Your task to perform on an android device: Open calendar and show me the first week of next month Image 0: 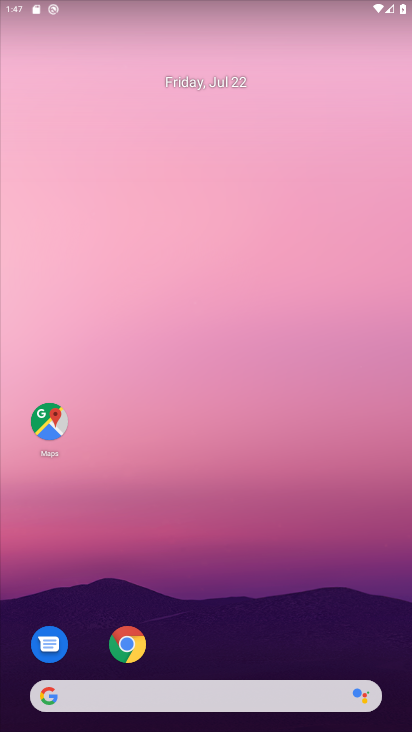
Step 0: drag from (230, 632) to (277, 7)
Your task to perform on an android device: Open calendar and show me the first week of next month Image 1: 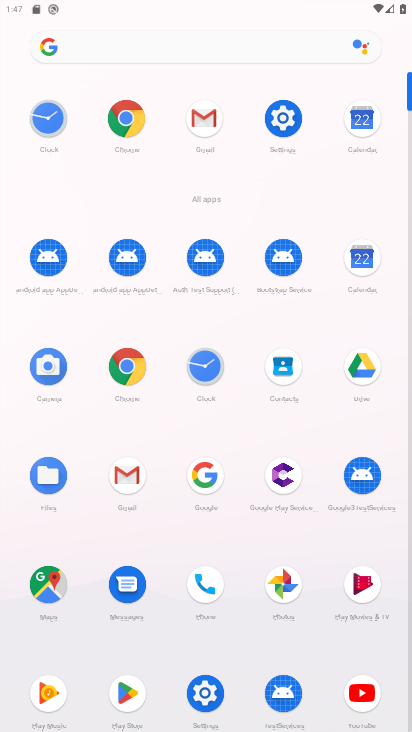
Step 1: click (368, 132)
Your task to perform on an android device: Open calendar and show me the first week of next month Image 2: 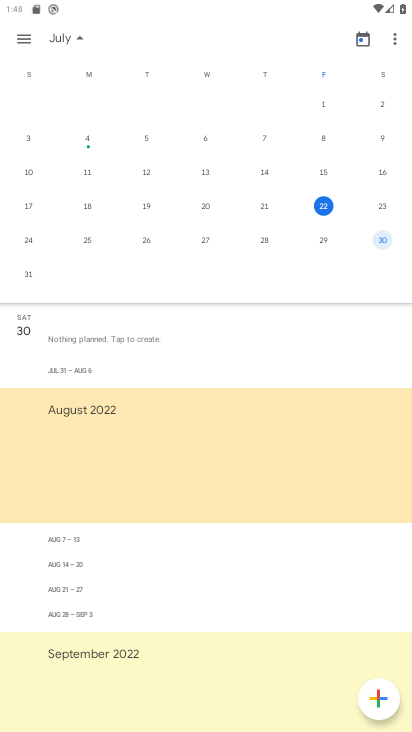
Step 2: task complete